Your task to perform on an android device: What's on my calendar tomorrow? Image 0: 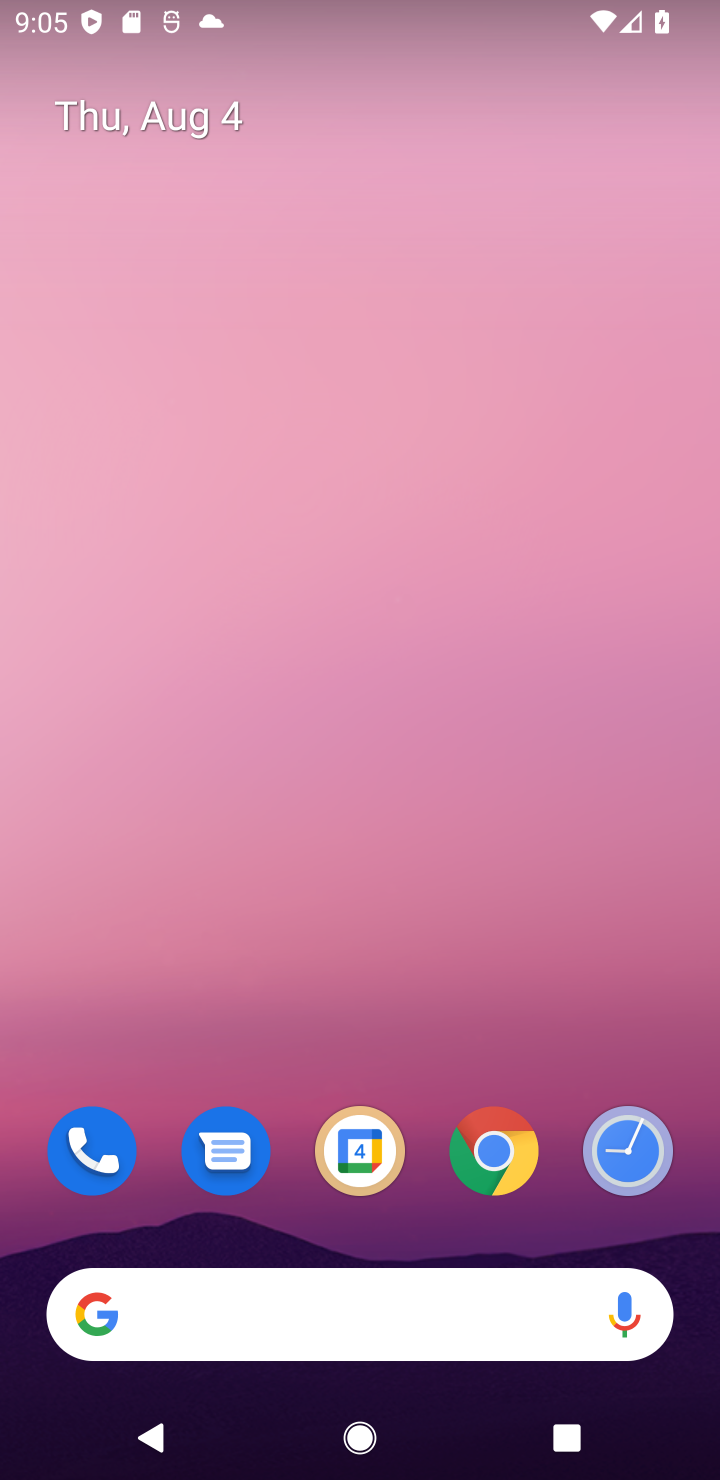
Step 0: click (366, 1146)
Your task to perform on an android device: What's on my calendar tomorrow? Image 1: 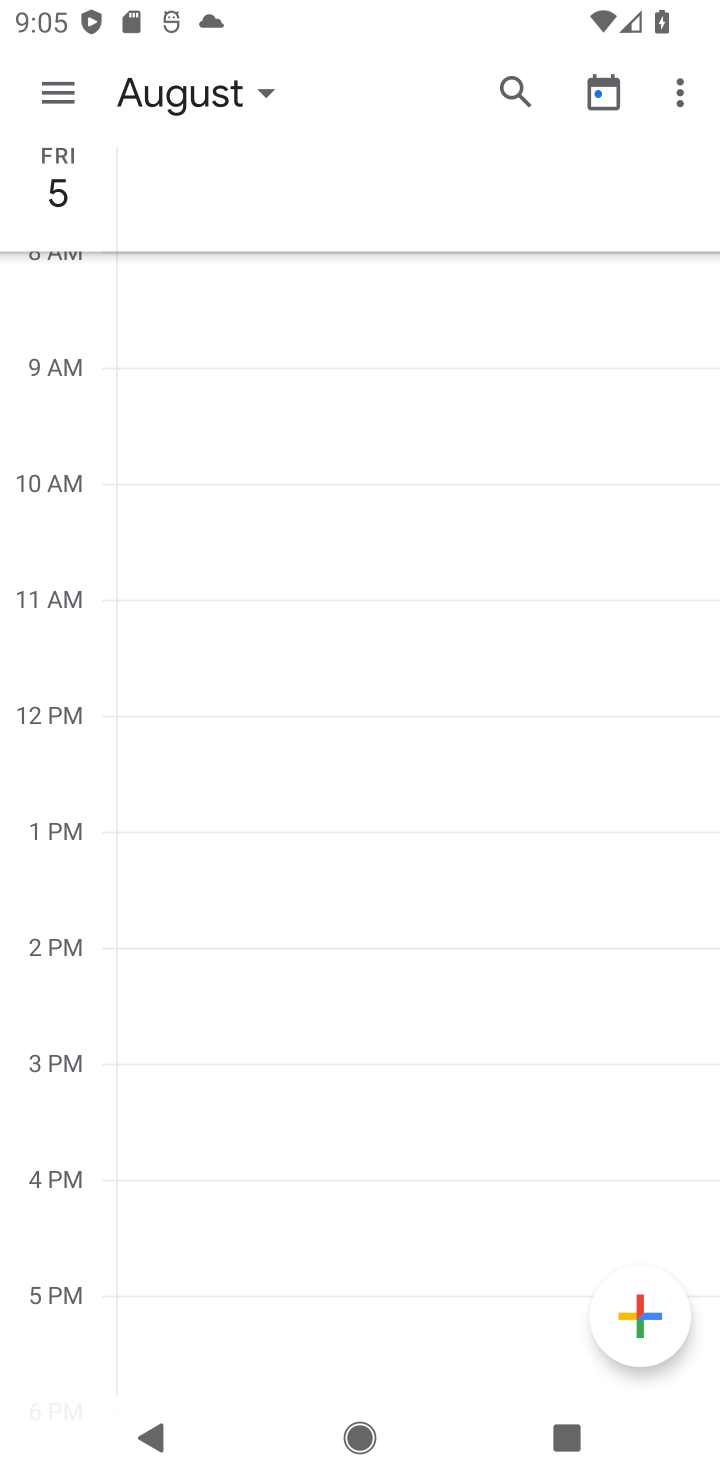
Step 1: click (57, 73)
Your task to perform on an android device: What's on my calendar tomorrow? Image 2: 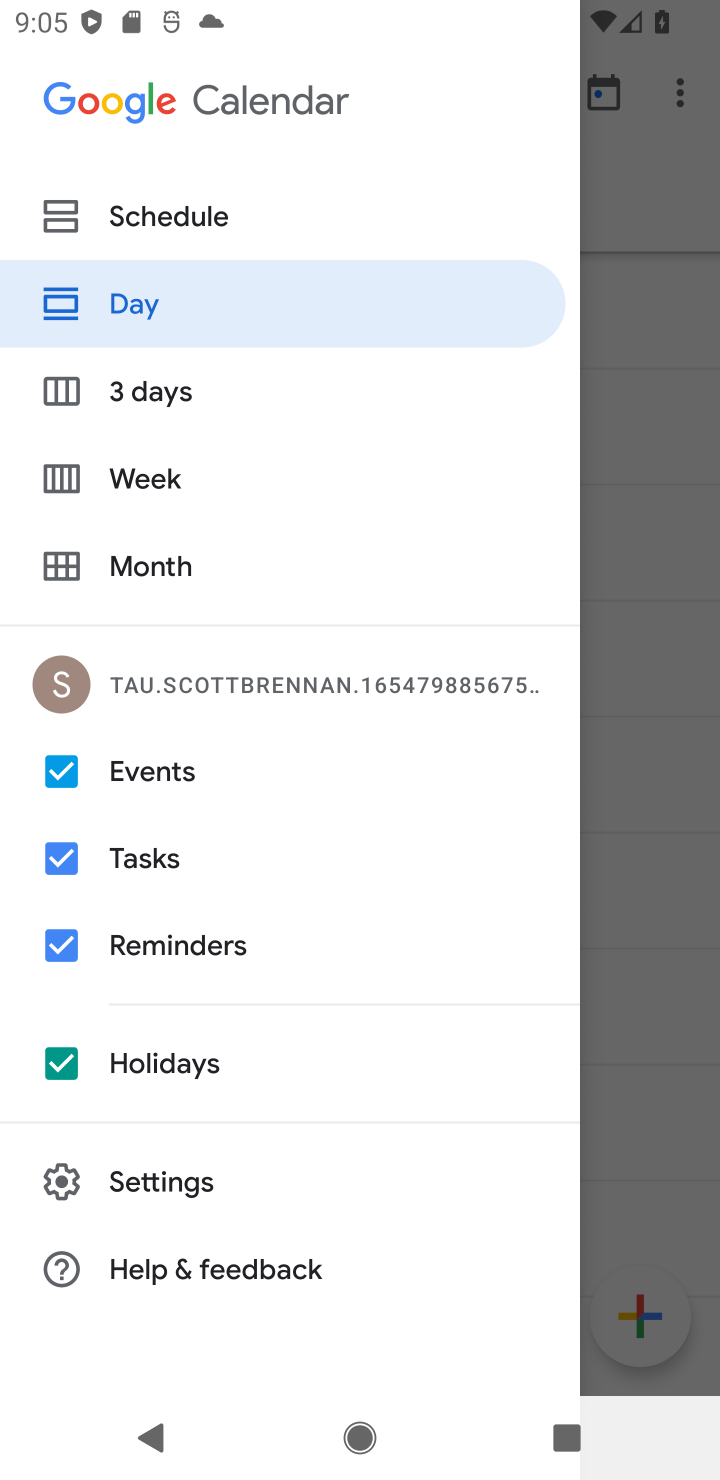
Step 2: click (622, 472)
Your task to perform on an android device: What's on my calendar tomorrow? Image 3: 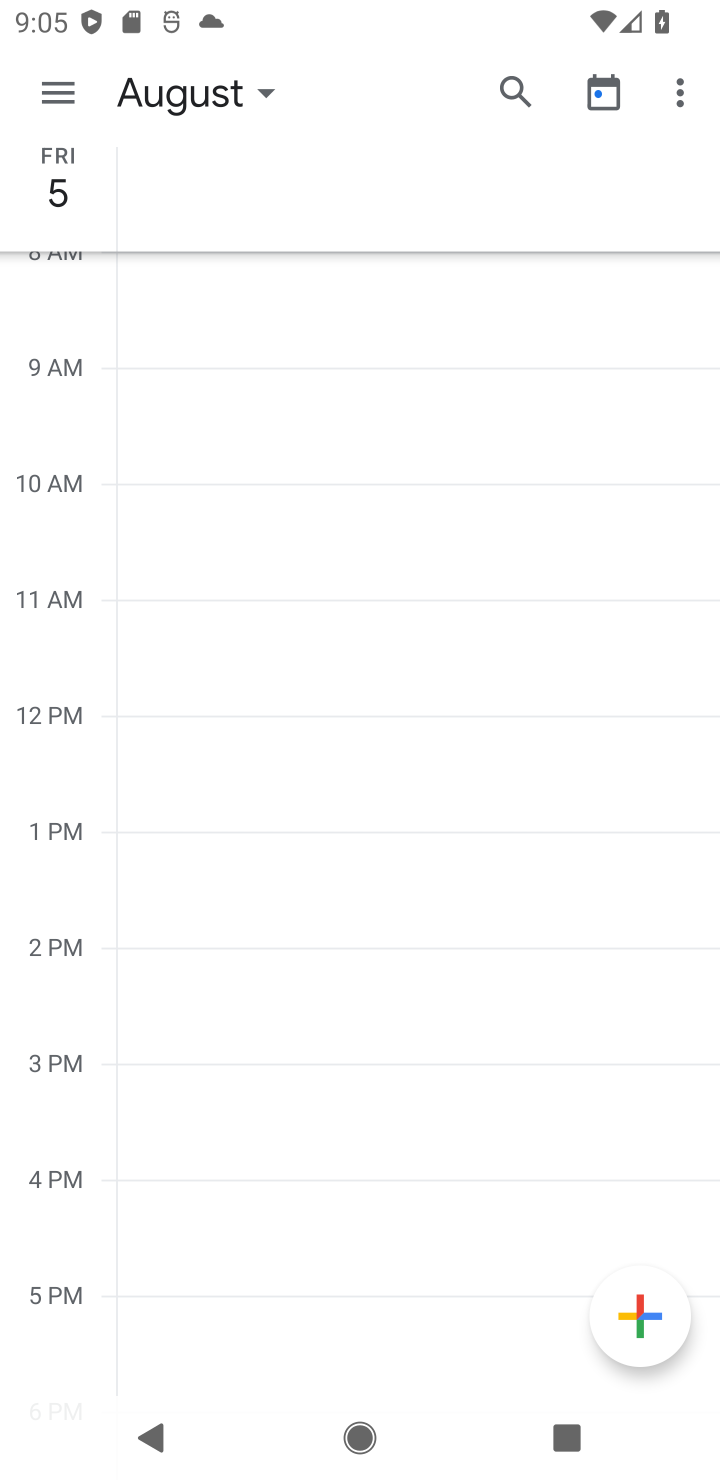
Step 3: click (260, 87)
Your task to perform on an android device: What's on my calendar tomorrow? Image 4: 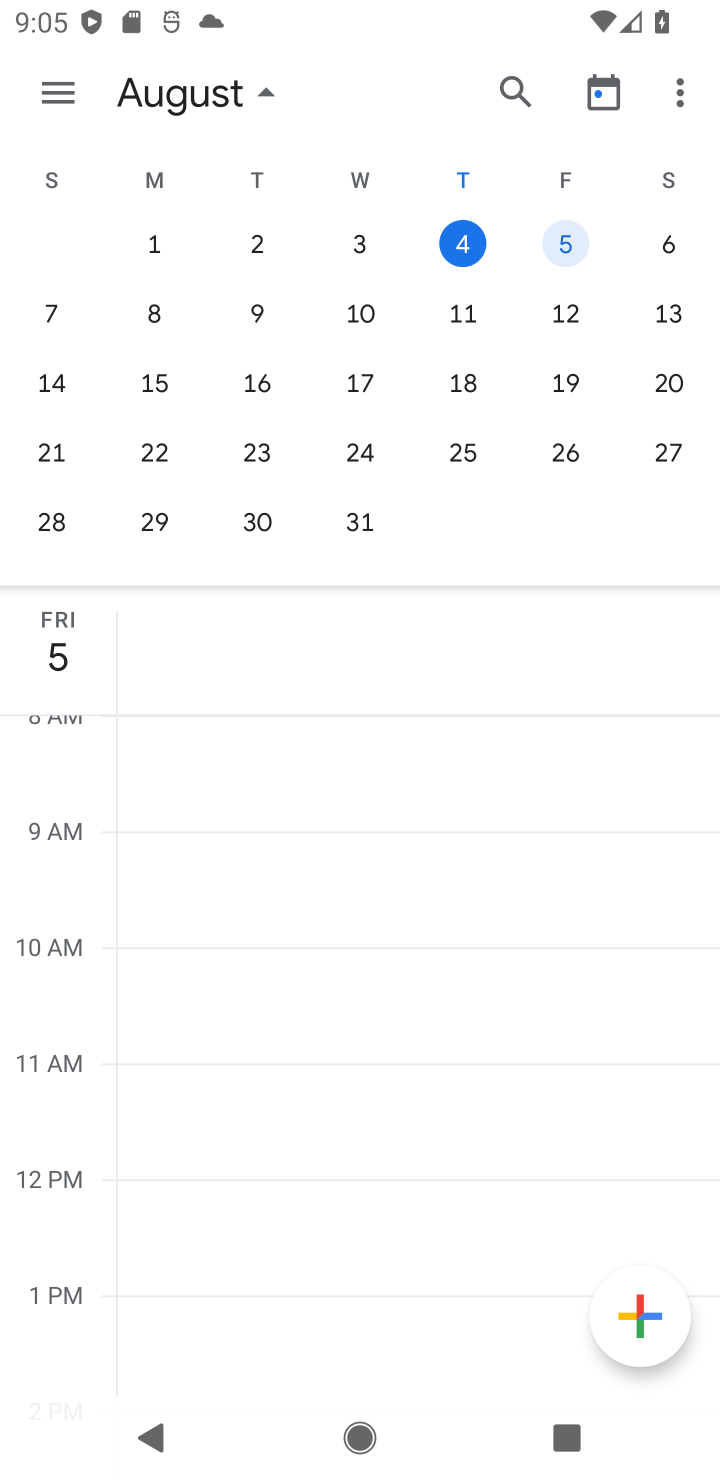
Step 4: click (568, 234)
Your task to perform on an android device: What's on my calendar tomorrow? Image 5: 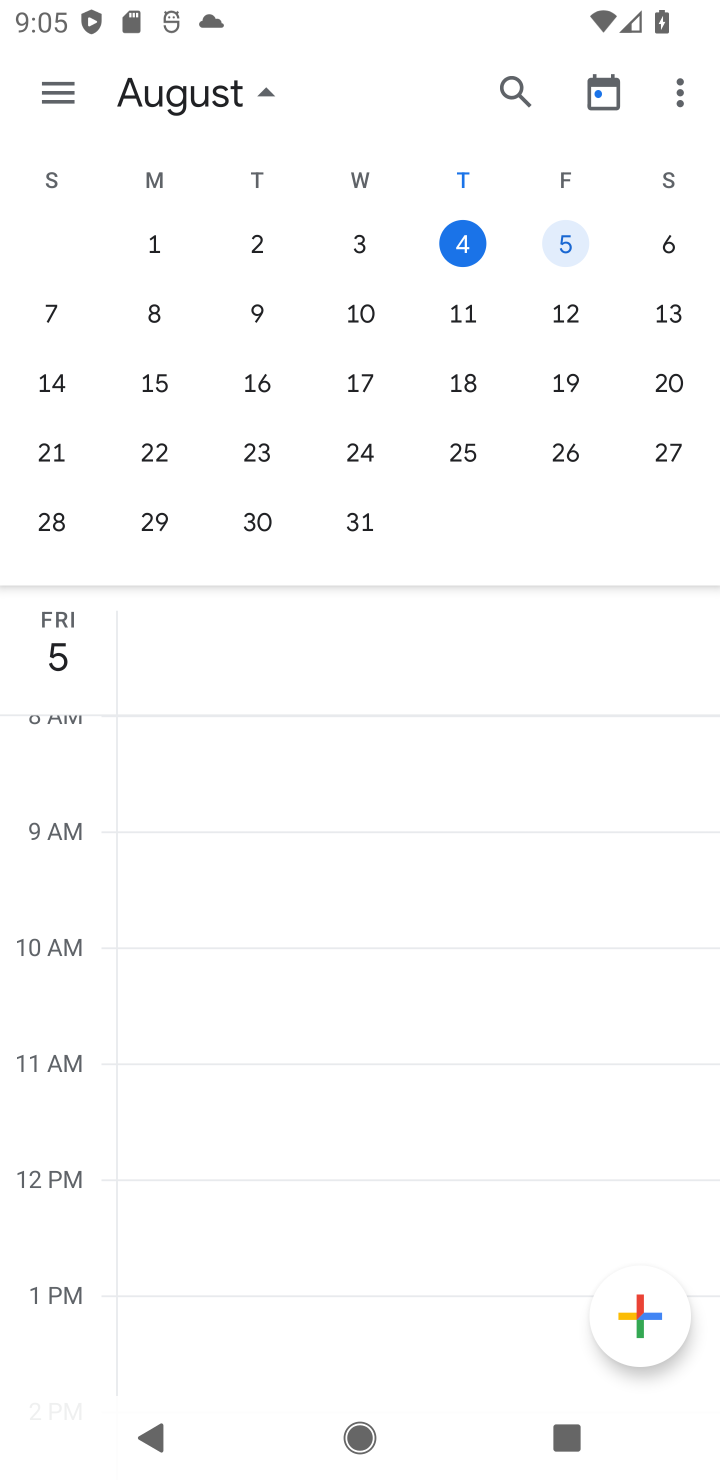
Step 5: click (562, 245)
Your task to perform on an android device: What's on my calendar tomorrow? Image 6: 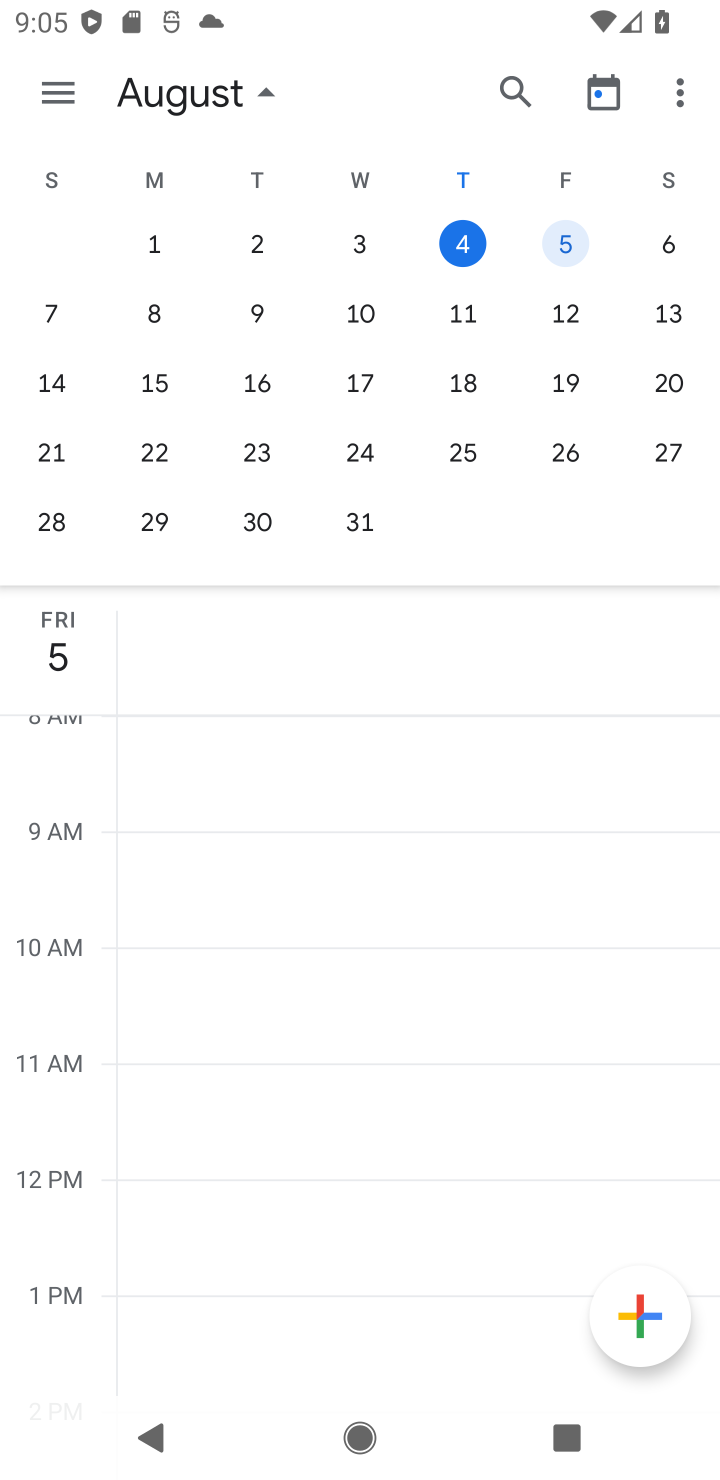
Step 6: click (562, 245)
Your task to perform on an android device: What's on my calendar tomorrow? Image 7: 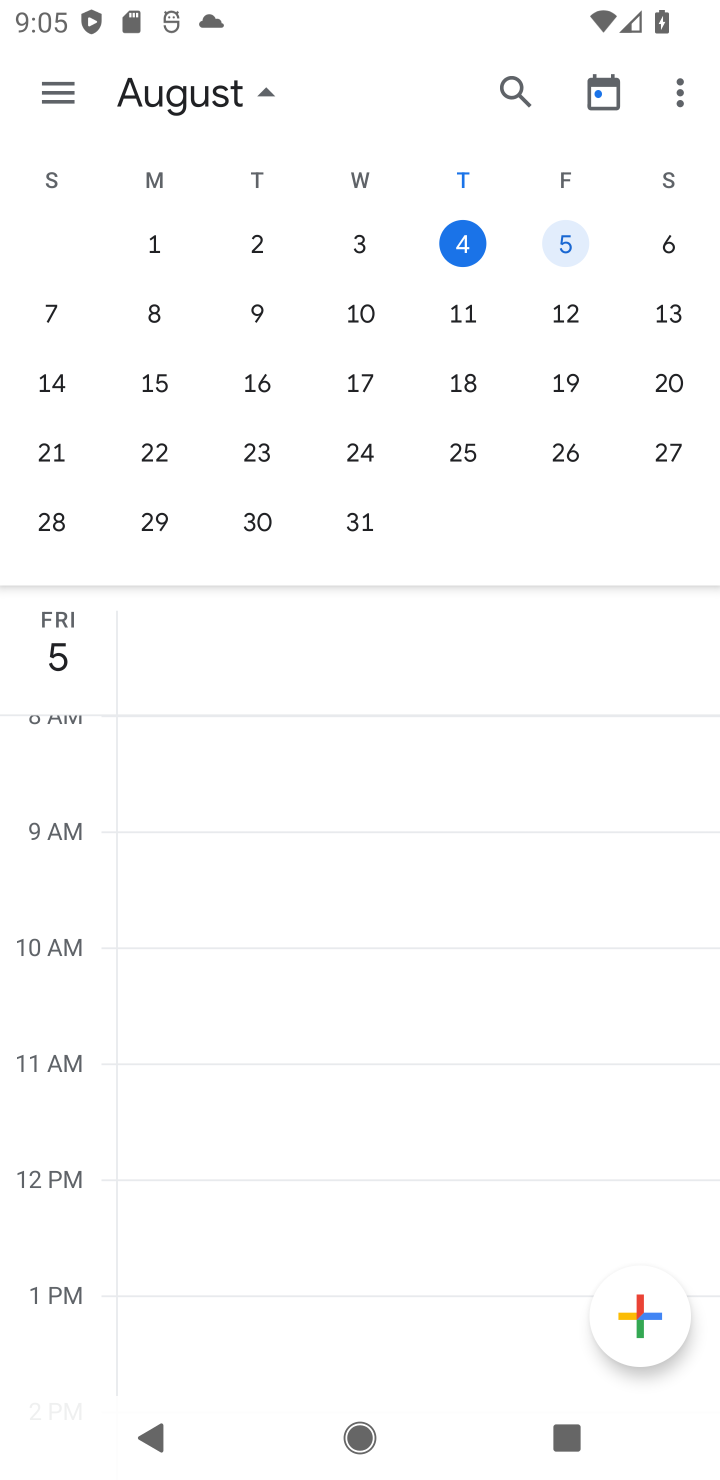
Step 7: click (562, 245)
Your task to perform on an android device: What's on my calendar tomorrow? Image 8: 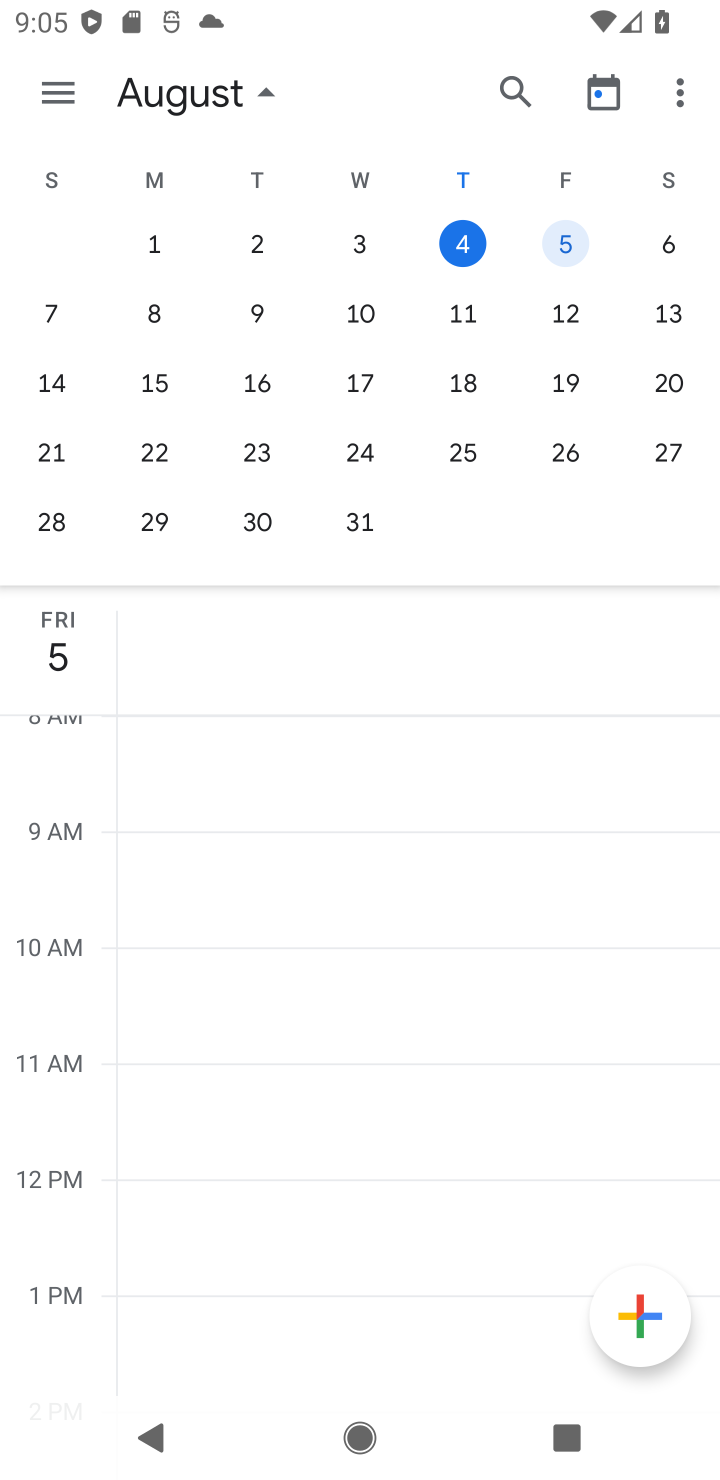
Step 8: click (562, 245)
Your task to perform on an android device: What's on my calendar tomorrow? Image 9: 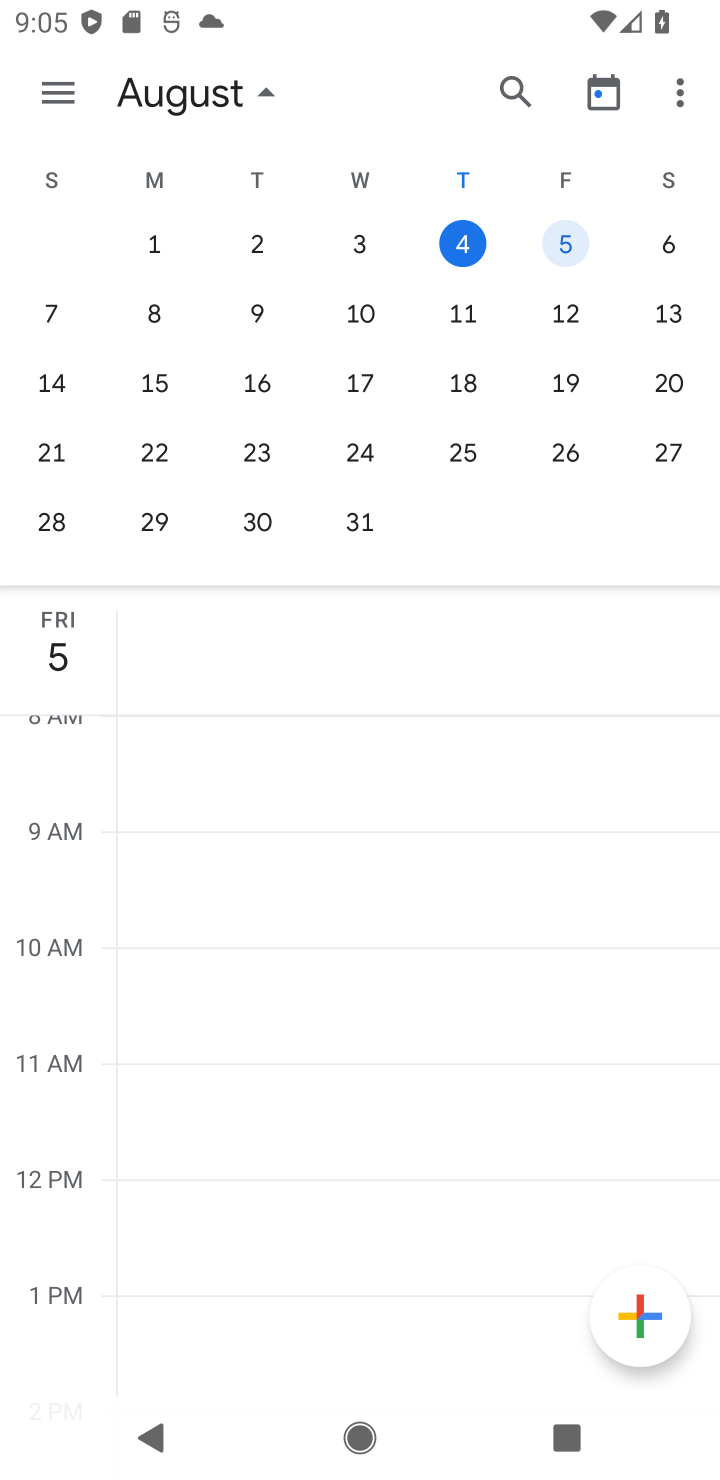
Step 9: click (574, 230)
Your task to perform on an android device: What's on my calendar tomorrow? Image 10: 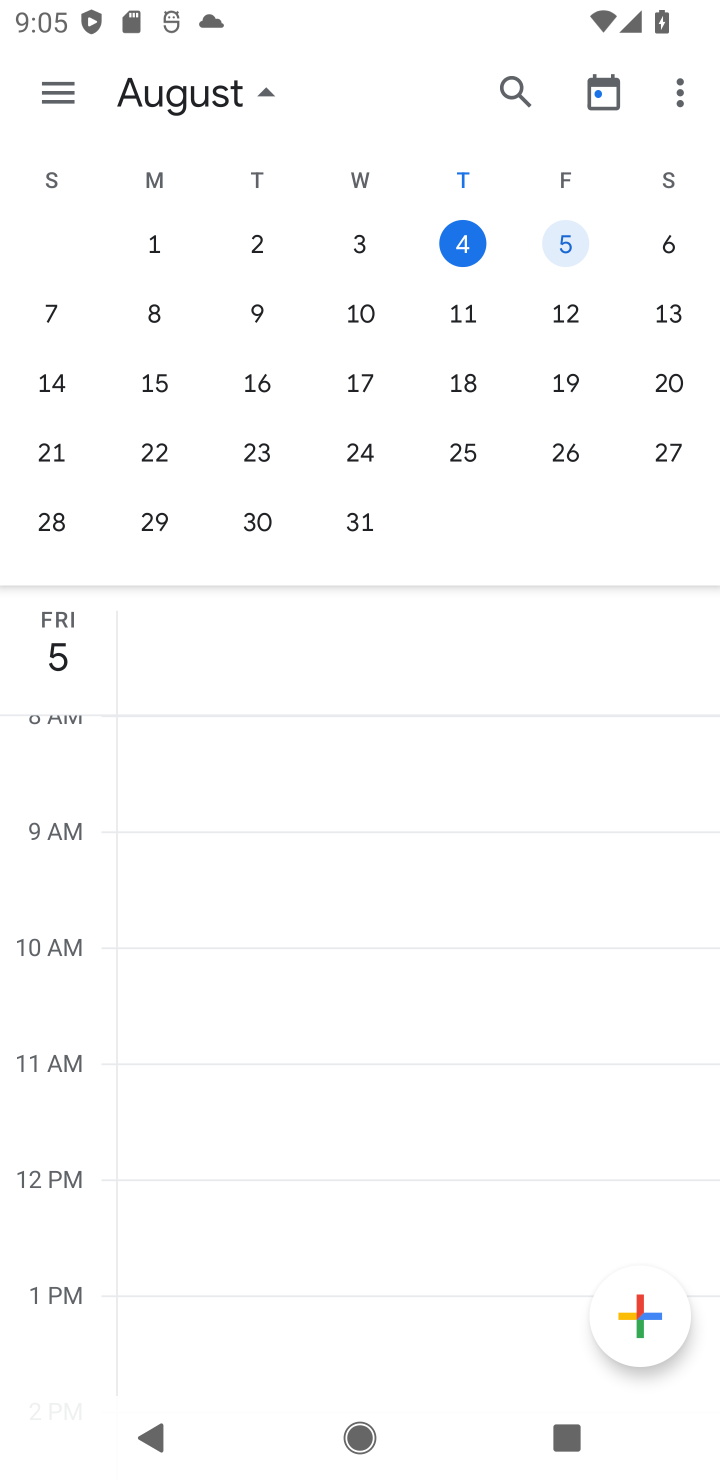
Step 10: task complete